Your task to perform on an android device: find which apps use the phone's location Image 0: 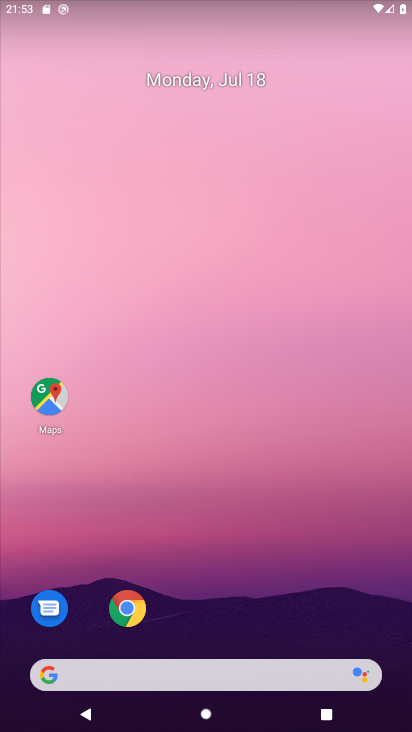
Step 0: drag from (235, 633) to (244, 120)
Your task to perform on an android device: find which apps use the phone's location Image 1: 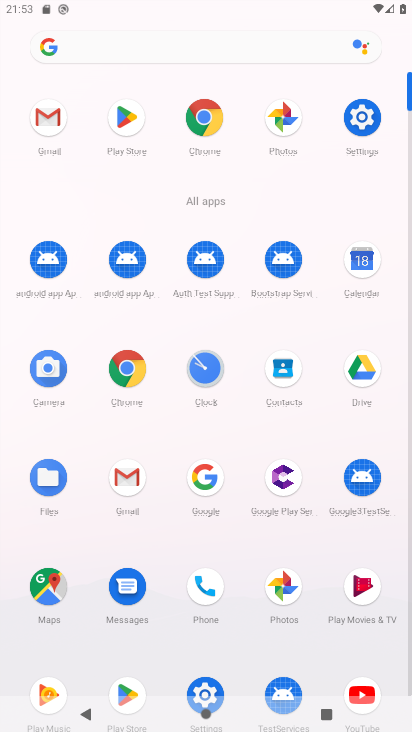
Step 1: click (203, 685)
Your task to perform on an android device: find which apps use the phone's location Image 2: 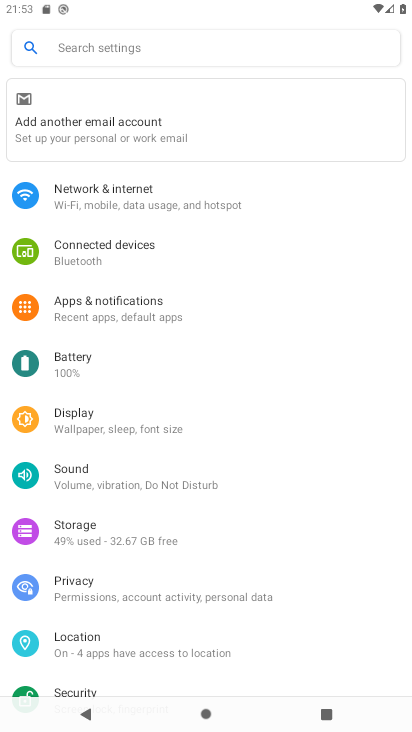
Step 2: drag from (110, 610) to (135, 351)
Your task to perform on an android device: find which apps use the phone's location Image 3: 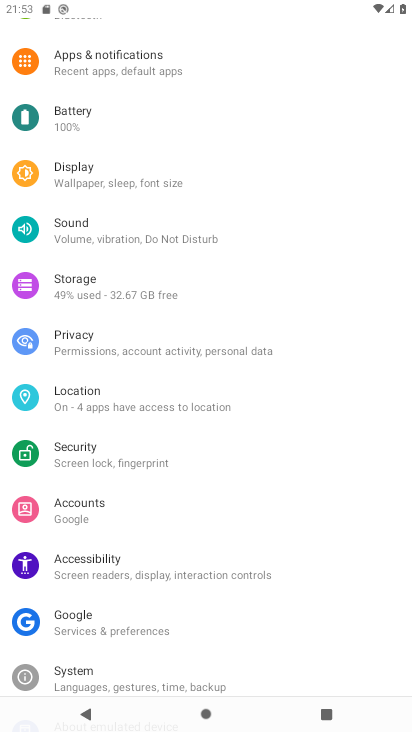
Step 3: click (100, 400)
Your task to perform on an android device: find which apps use the phone's location Image 4: 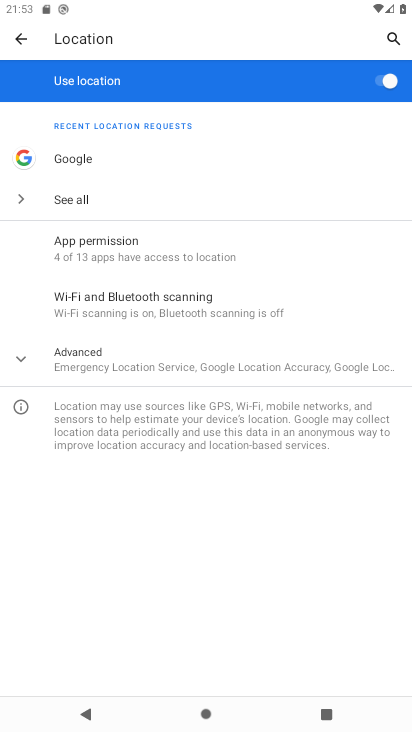
Step 4: click (142, 253)
Your task to perform on an android device: find which apps use the phone's location Image 5: 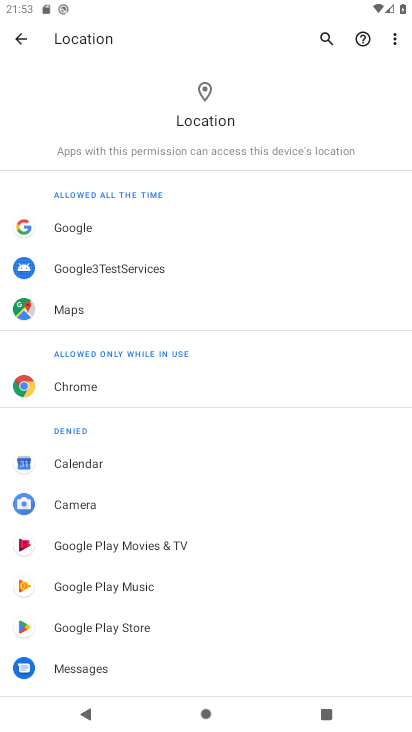
Step 5: task complete